Your task to perform on an android device: delete the emails in spam in the gmail app Image 0: 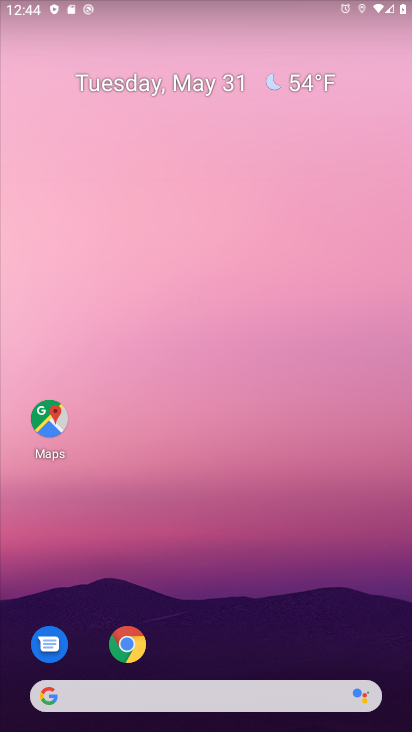
Step 0: press home button
Your task to perform on an android device: delete the emails in spam in the gmail app Image 1: 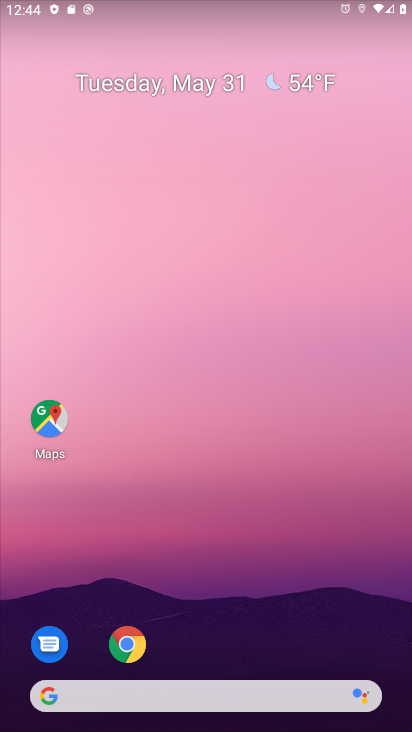
Step 1: drag from (289, 615) to (289, 132)
Your task to perform on an android device: delete the emails in spam in the gmail app Image 2: 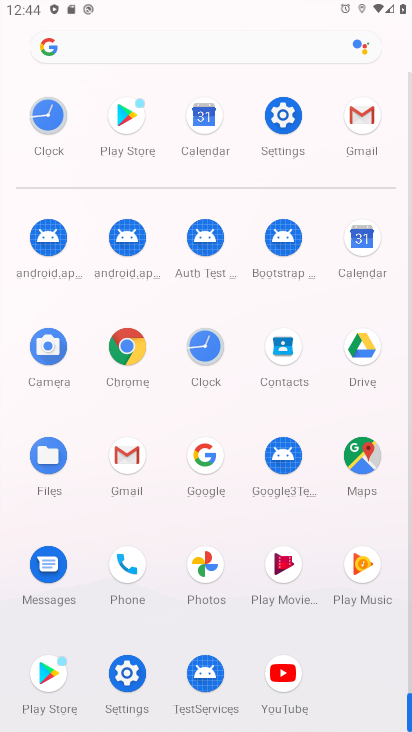
Step 2: click (129, 451)
Your task to perform on an android device: delete the emails in spam in the gmail app Image 3: 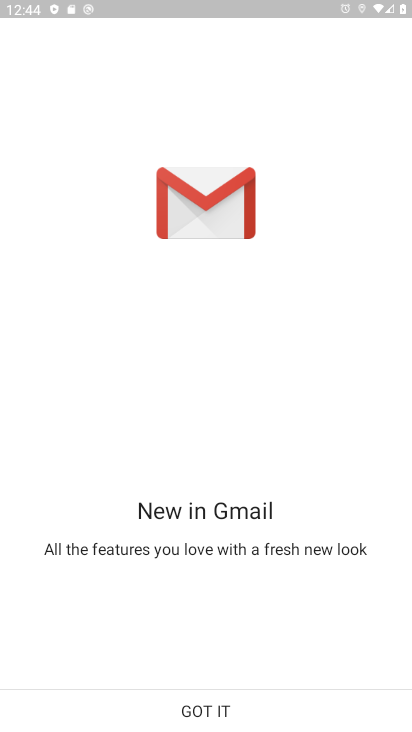
Step 3: click (229, 709)
Your task to perform on an android device: delete the emails in spam in the gmail app Image 4: 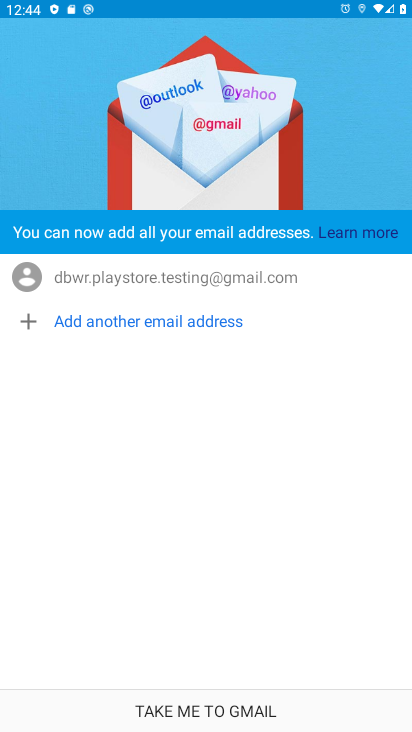
Step 4: click (229, 708)
Your task to perform on an android device: delete the emails in spam in the gmail app Image 5: 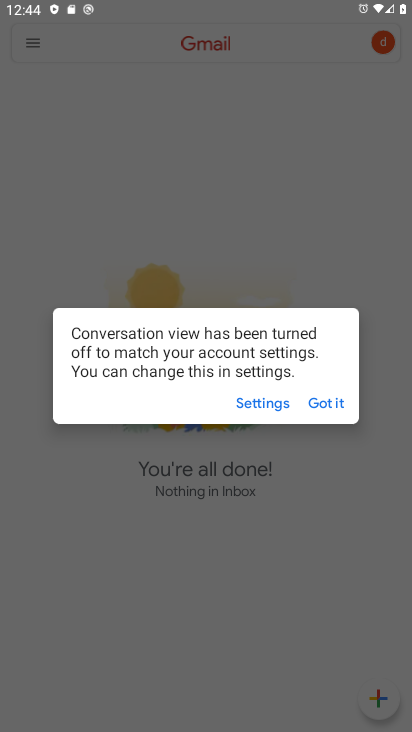
Step 5: click (330, 405)
Your task to perform on an android device: delete the emails in spam in the gmail app Image 6: 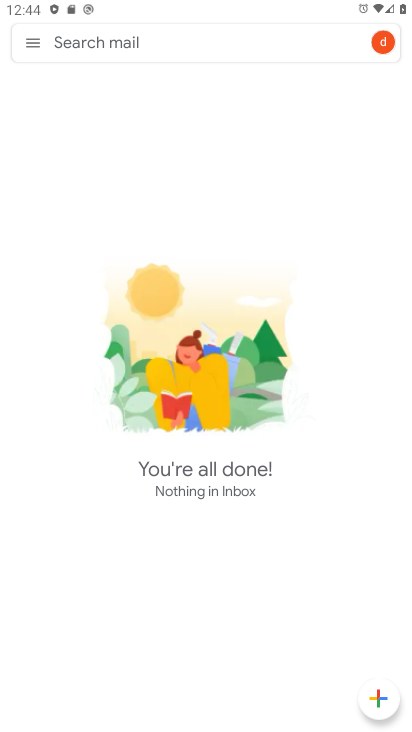
Step 6: click (33, 43)
Your task to perform on an android device: delete the emails in spam in the gmail app Image 7: 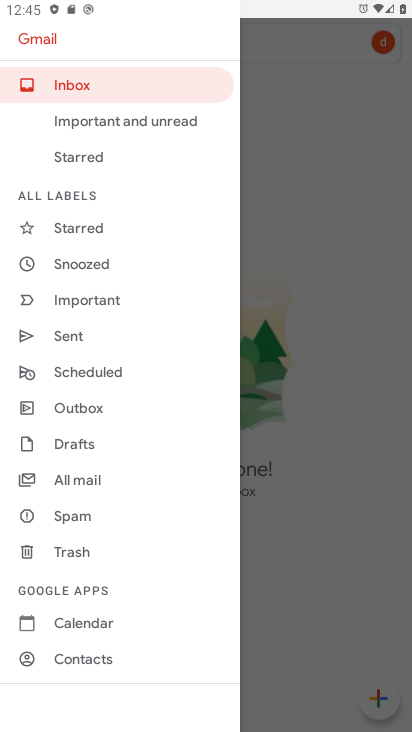
Step 7: click (68, 516)
Your task to perform on an android device: delete the emails in spam in the gmail app Image 8: 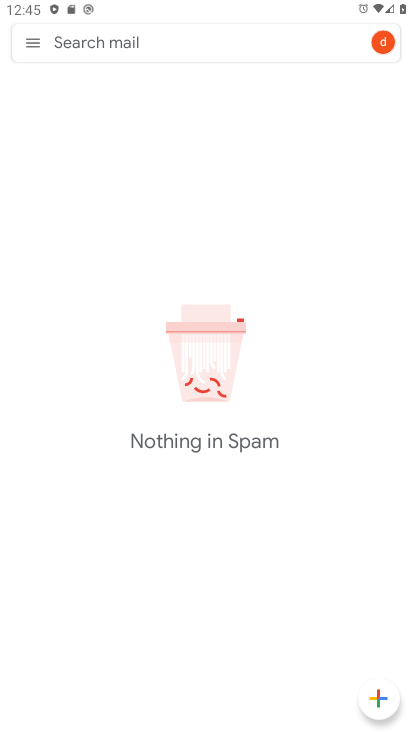
Step 8: task complete